Your task to perform on an android device: turn on priority inbox in the gmail app Image 0: 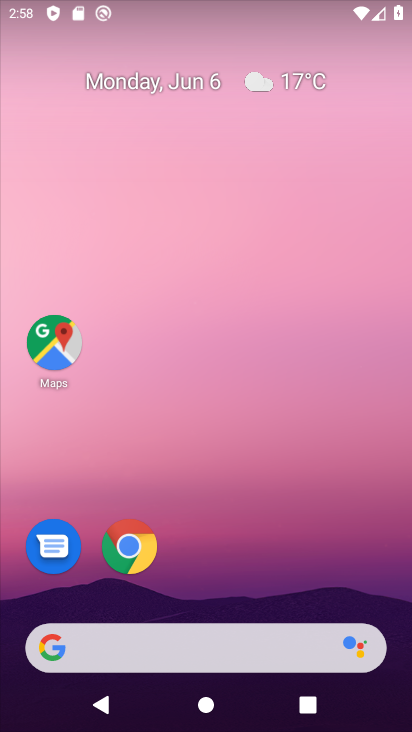
Step 0: drag from (331, 589) to (253, 51)
Your task to perform on an android device: turn on priority inbox in the gmail app Image 1: 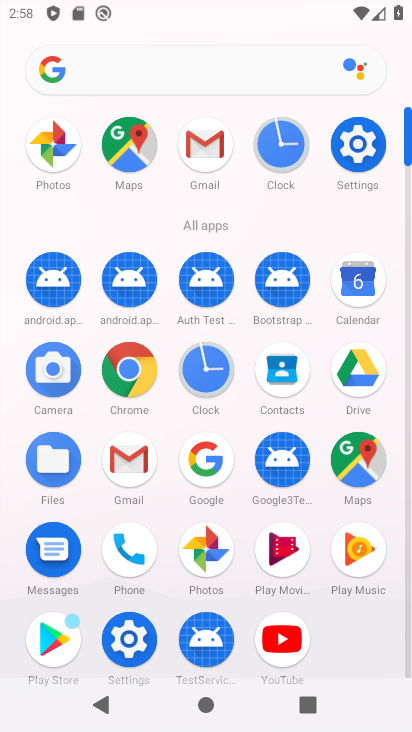
Step 1: click (213, 138)
Your task to perform on an android device: turn on priority inbox in the gmail app Image 2: 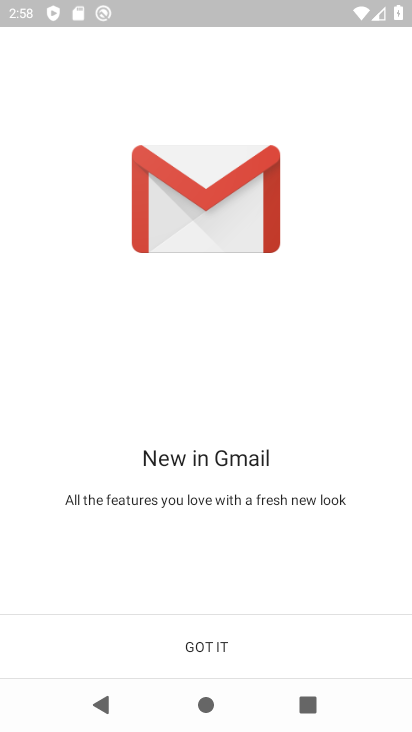
Step 2: click (161, 652)
Your task to perform on an android device: turn on priority inbox in the gmail app Image 3: 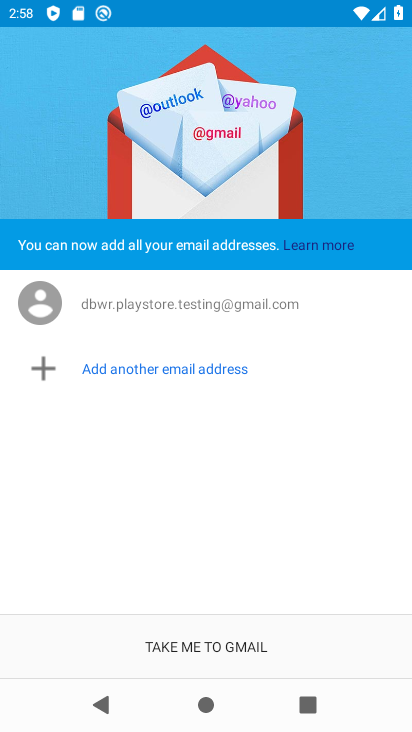
Step 3: click (148, 638)
Your task to perform on an android device: turn on priority inbox in the gmail app Image 4: 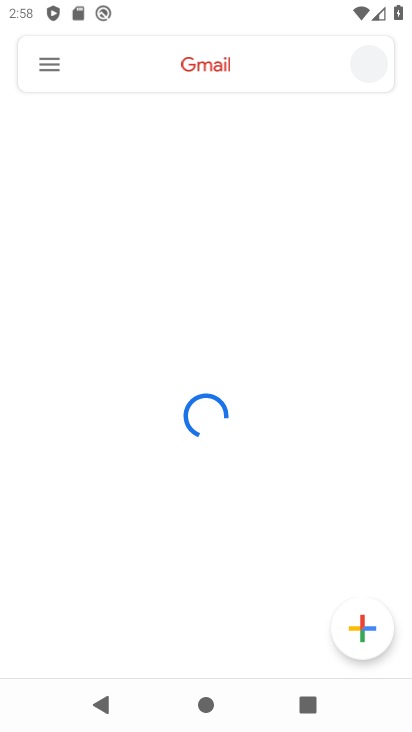
Step 4: click (43, 73)
Your task to perform on an android device: turn on priority inbox in the gmail app Image 5: 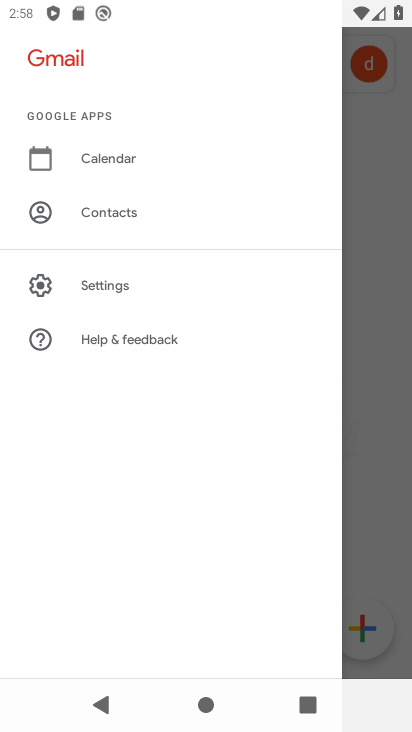
Step 5: click (90, 275)
Your task to perform on an android device: turn on priority inbox in the gmail app Image 6: 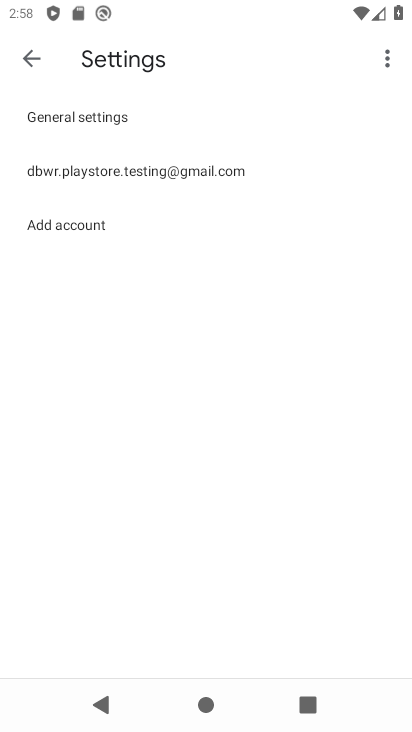
Step 6: click (78, 166)
Your task to perform on an android device: turn on priority inbox in the gmail app Image 7: 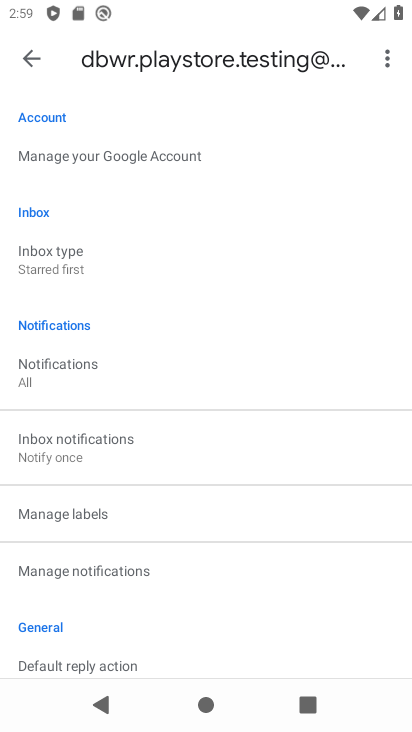
Step 7: click (38, 252)
Your task to perform on an android device: turn on priority inbox in the gmail app Image 8: 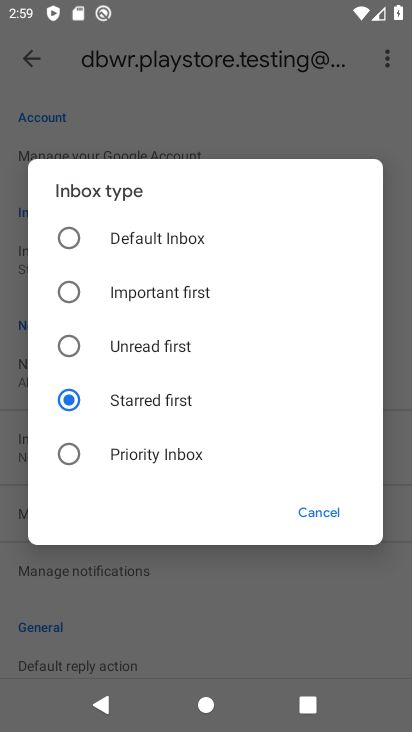
Step 8: click (70, 446)
Your task to perform on an android device: turn on priority inbox in the gmail app Image 9: 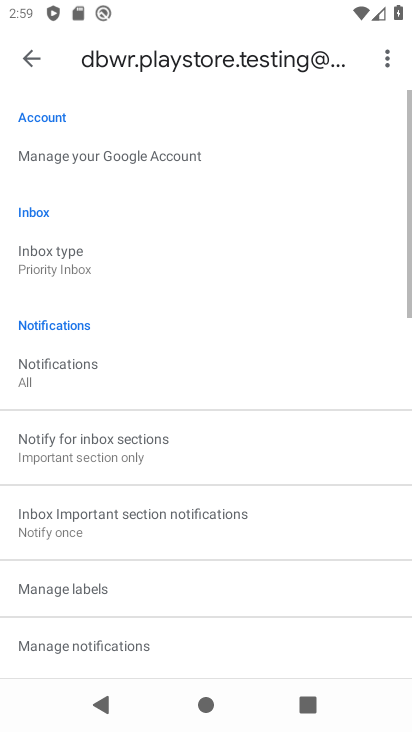
Step 9: task complete